Your task to perform on an android device: turn on notifications settings in the gmail app Image 0: 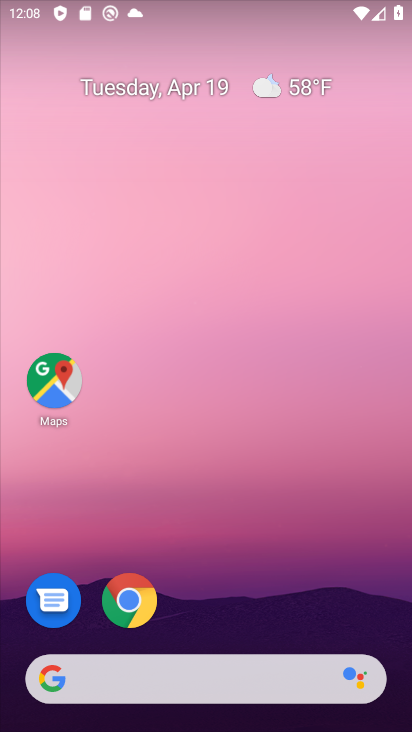
Step 0: drag from (286, 647) to (318, 148)
Your task to perform on an android device: turn on notifications settings in the gmail app Image 1: 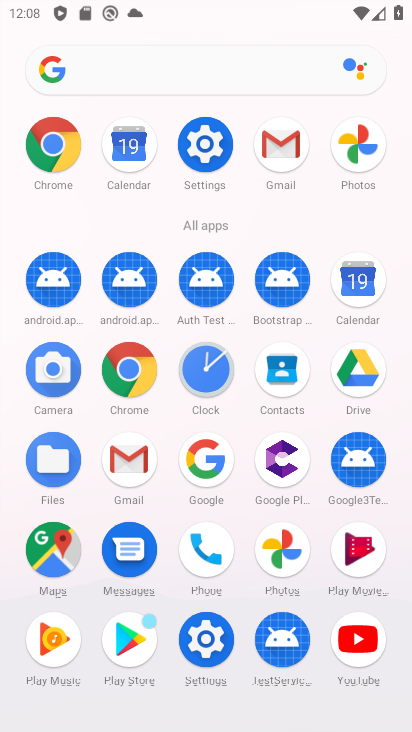
Step 1: click (275, 133)
Your task to perform on an android device: turn on notifications settings in the gmail app Image 2: 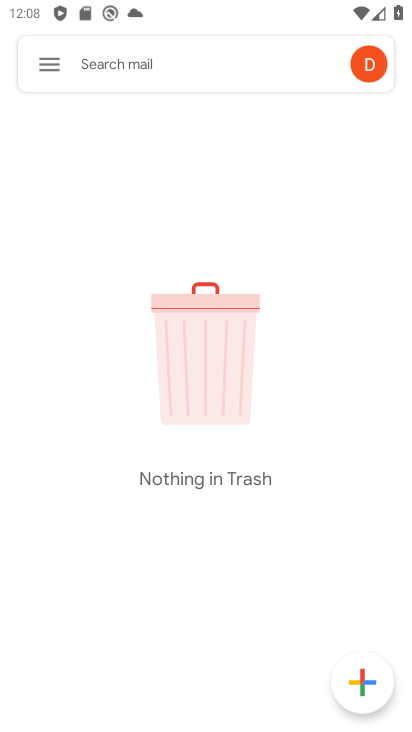
Step 2: click (47, 60)
Your task to perform on an android device: turn on notifications settings in the gmail app Image 3: 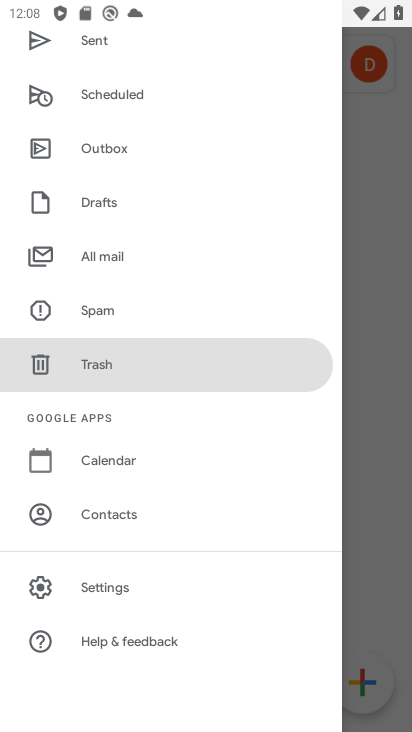
Step 3: click (103, 596)
Your task to perform on an android device: turn on notifications settings in the gmail app Image 4: 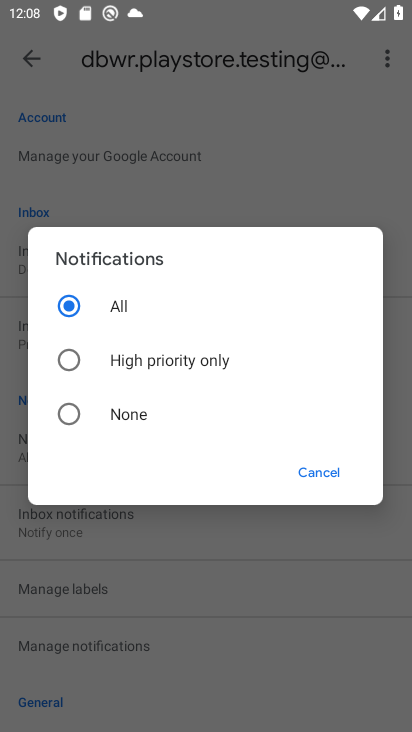
Step 4: click (159, 356)
Your task to perform on an android device: turn on notifications settings in the gmail app Image 5: 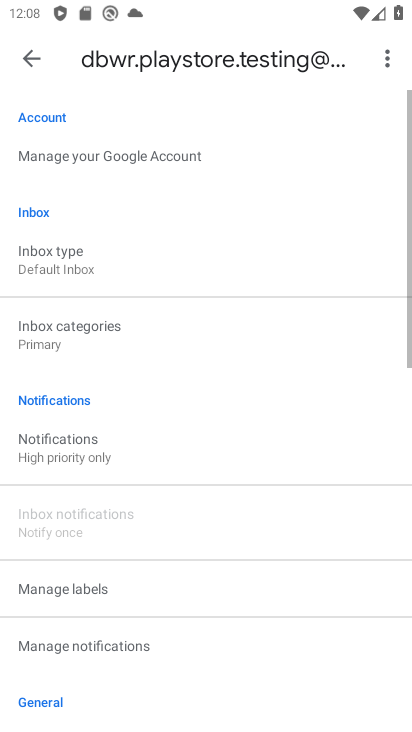
Step 5: task complete